Your task to perform on an android device: turn on the 12-hour format for clock Image 0: 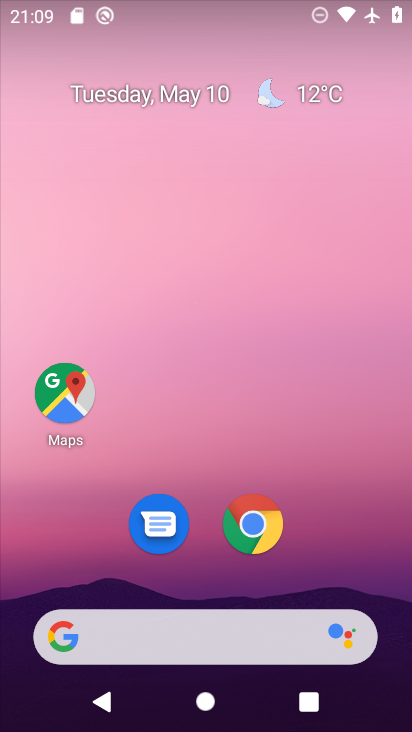
Step 0: drag from (345, 547) to (235, 19)
Your task to perform on an android device: turn on the 12-hour format for clock Image 1: 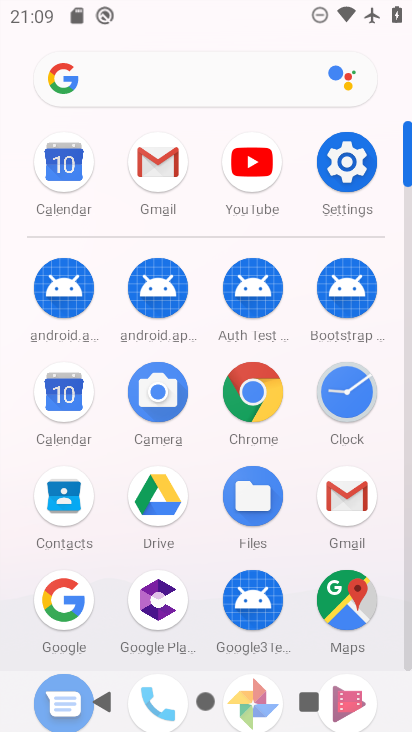
Step 1: click (355, 380)
Your task to perform on an android device: turn on the 12-hour format for clock Image 2: 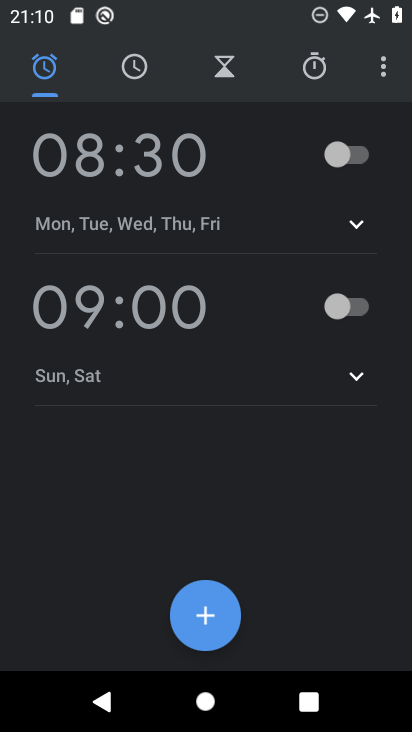
Step 2: click (377, 59)
Your task to perform on an android device: turn on the 12-hour format for clock Image 3: 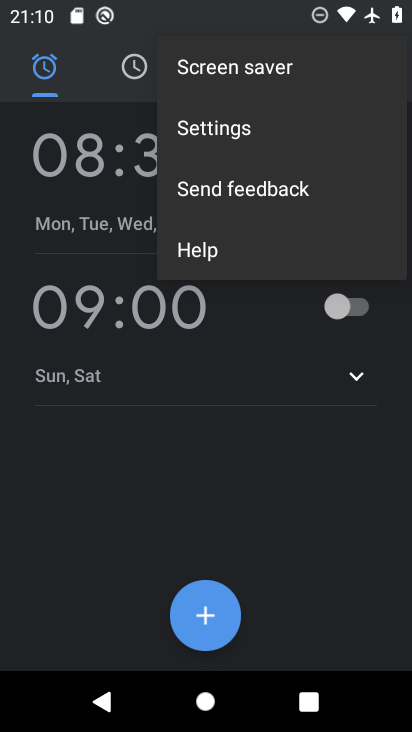
Step 3: click (276, 138)
Your task to perform on an android device: turn on the 12-hour format for clock Image 4: 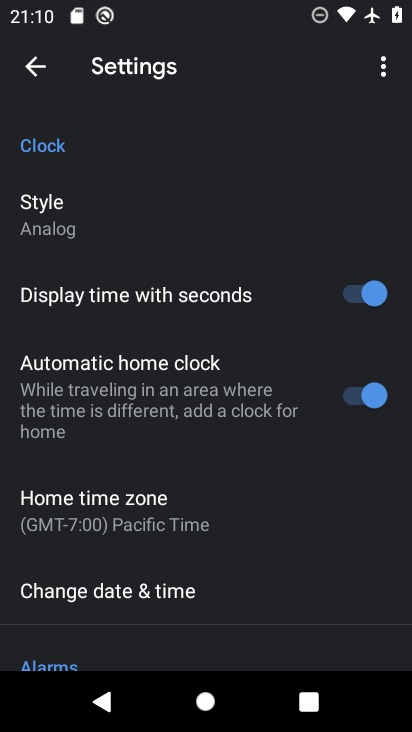
Step 4: drag from (277, 517) to (208, 247)
Your task to perform on an android device: turn on the 12-hour format for clock Image 5: 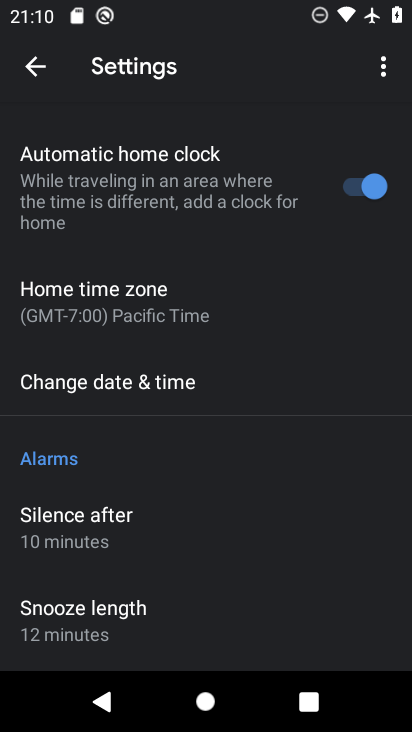
Step 5: click (249, 381)
Your task to perform on an android device: turn on the 12-hour format for clock Image 6: 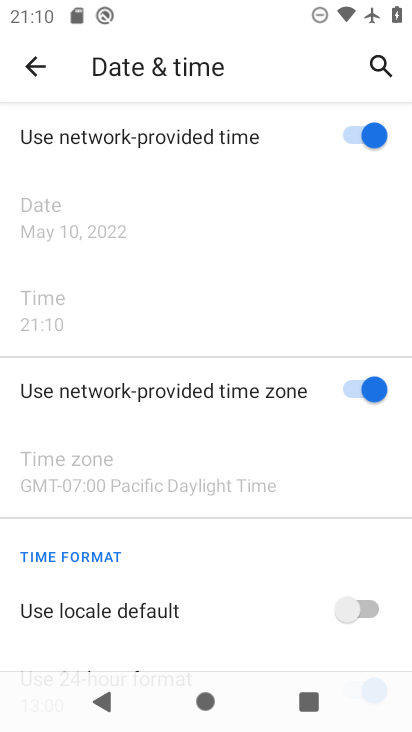
Step 6: drag from (303, 586) to (257, 301)
Your task to perform on an android device: turn on the 12-hour format for clock Image 7: 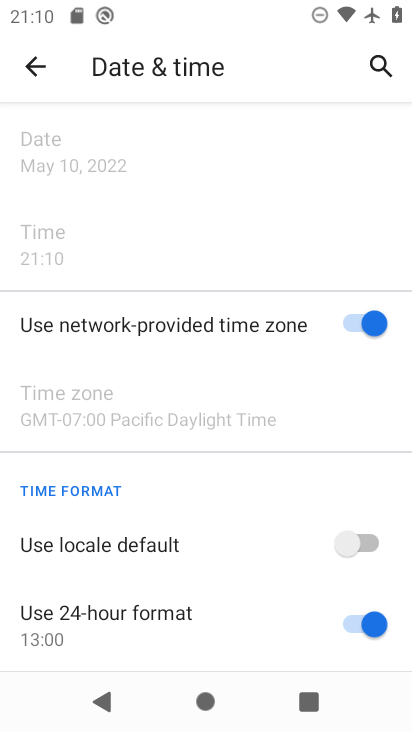
Step 7: click (363, 541)
Your task to perform on an android device: turn on the 12-hour format for clock Image 8: 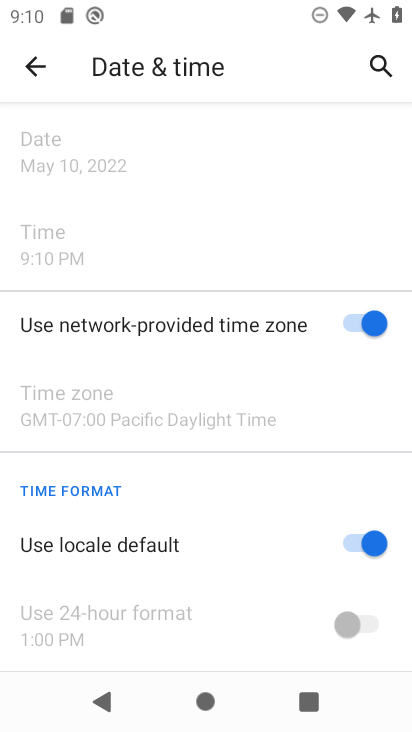
Step 8: task complete